Your task to perform on an android device: change notifications settings Image 0: 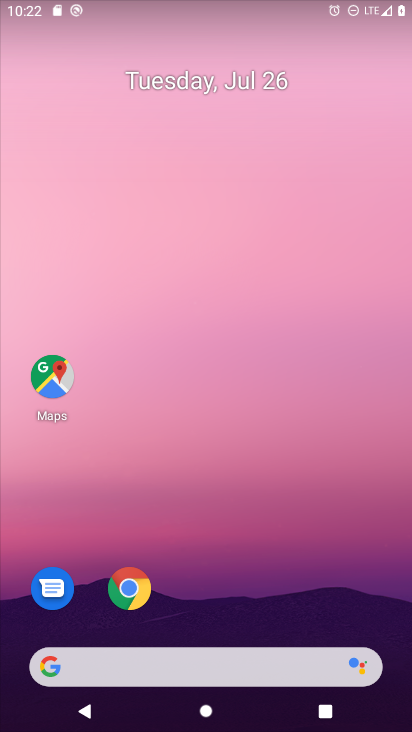
Step 0: drag from (238, 677) to (246, 254)
Your task to perform on an android device: change notifications settings Image 1: 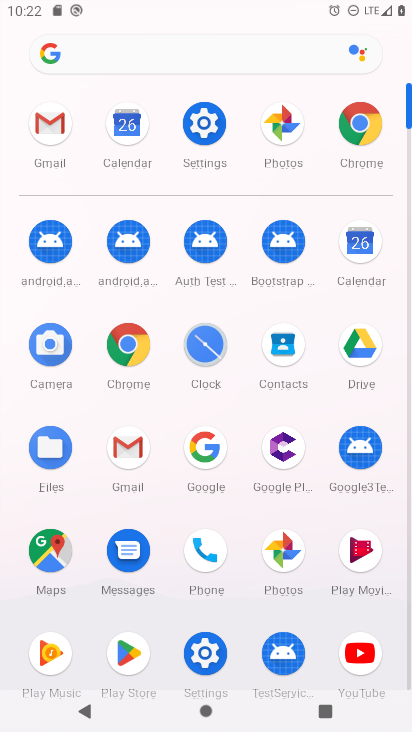
Step 1: click (214, 137)
Your task to perform on an android device: change notifications settings Image 2: 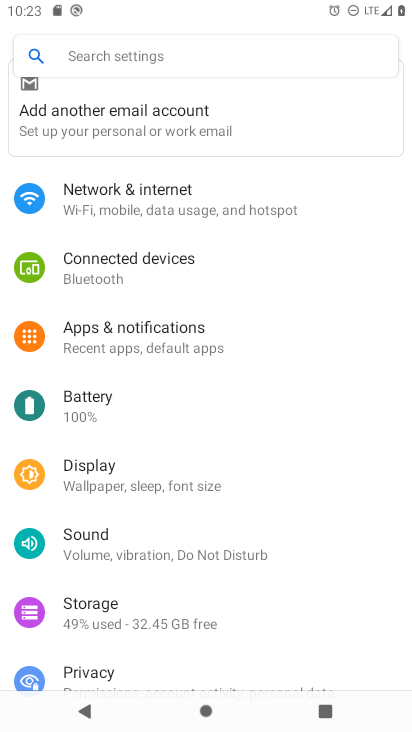
Step 2: click (138, 345)
Your task to perform on an android device: change notifications settings Image 3: 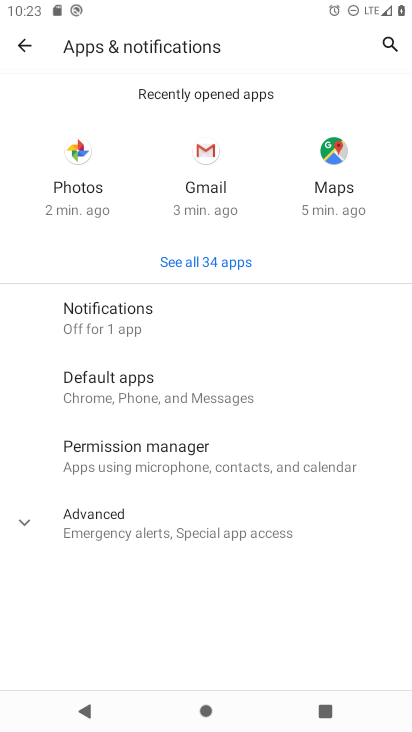
Step 3: click (120, 314)
Your task to perform on an android device: change notifications settings Image 4: 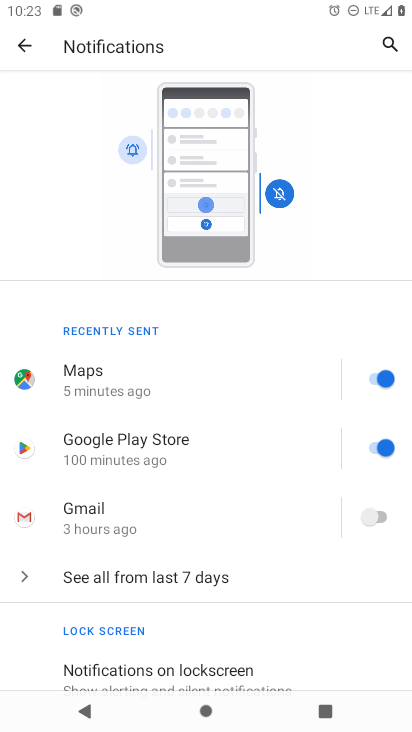
Step 4: click (386, 520)
Your task to perform on an android device: change notifications settings Image 5: 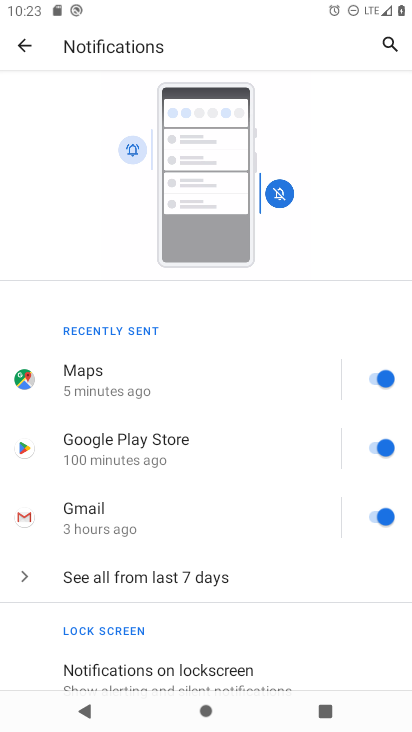
Step 5: task complete